Your task to perform on an android device: open wifi settings Image 0: 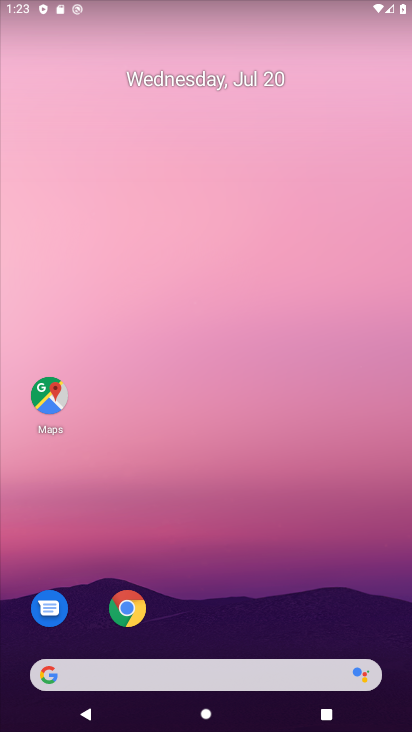
Step 0: task complete